Your task to perform on an android device: turn on bluetooth scan Image 0: 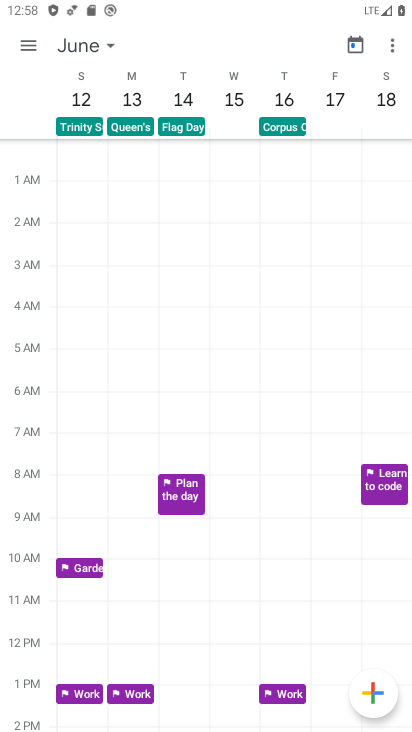
Step 0: press home button
Your task to perform on an android device: turn on bluetooth scan Image 1: 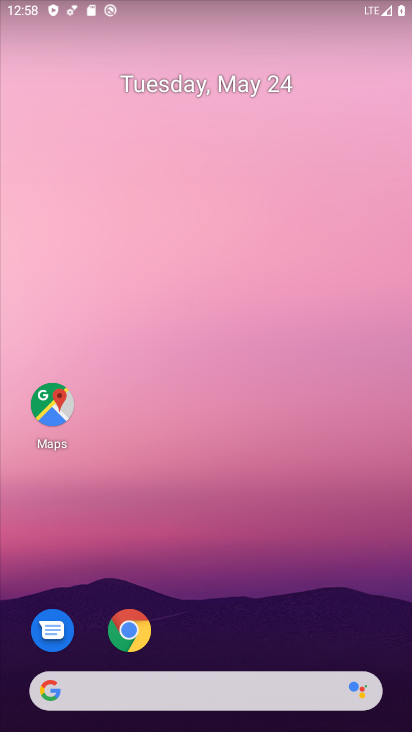
Step 1: drag from (261, 622) to (300, 163)
Your task to perform on an android device: turn on bluetooth scan Image 2: 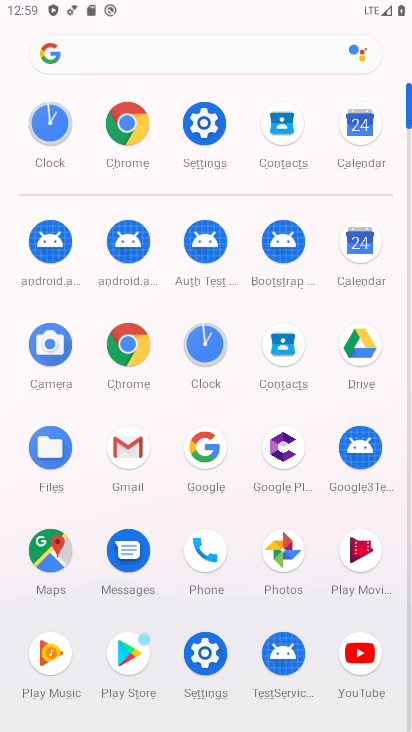
Step 2: click (205, 652)
Your task to perform on an android device: turn on bluetooth scan Image 3: 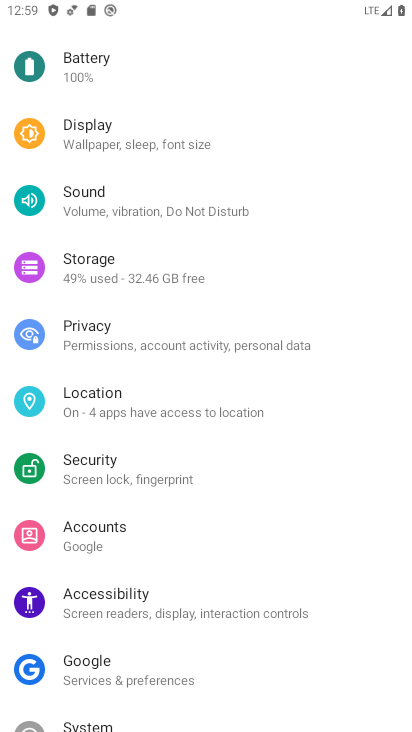
Step 3: click (157, 404)
Your task to perform on an android device: turn on bluetooth scan Image 4: 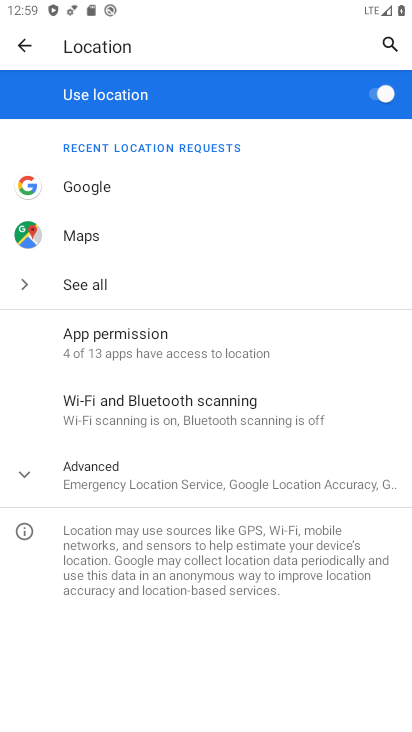
Step 4: click (110, 463)
Your task to perform on an android device: turn on bluetooth scan Image 5: 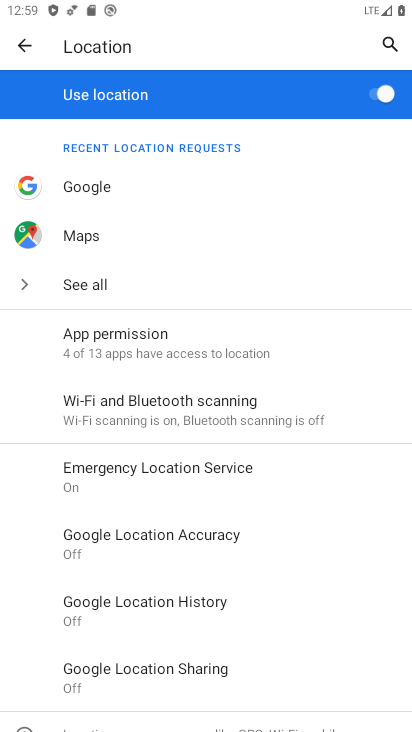
Step 5: click (191, 407)
Your task to perform on an android device: turn on bluetooth scan Image 6: 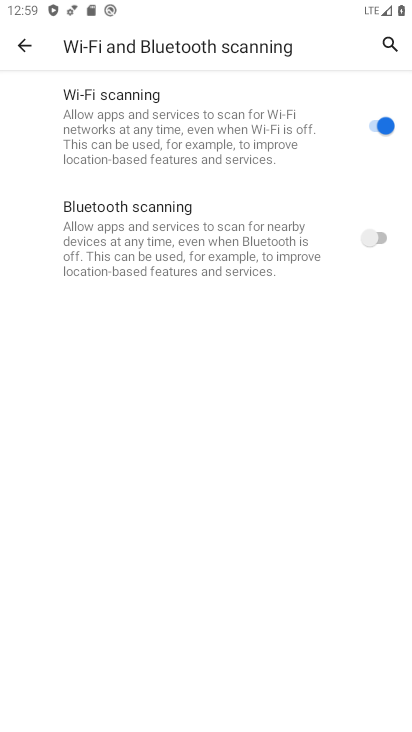
Step 6: click (376, 241)
Your task to perform on an android device: turn on bluetooth scan Image 7: 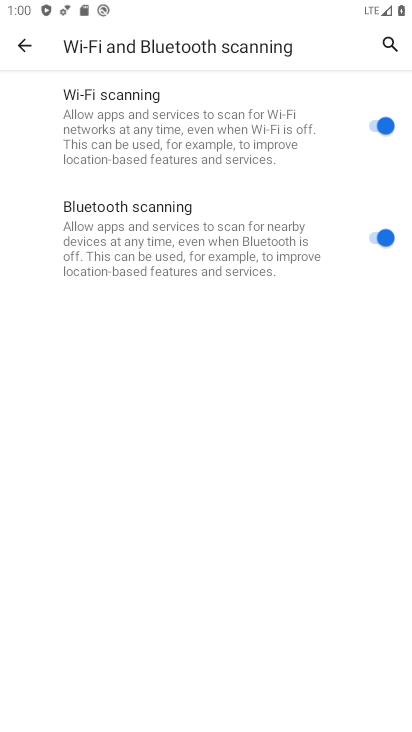
Step 7: task complete